Your task to perform on an android device: open chrome and create a bookmark for the current page Image 0: 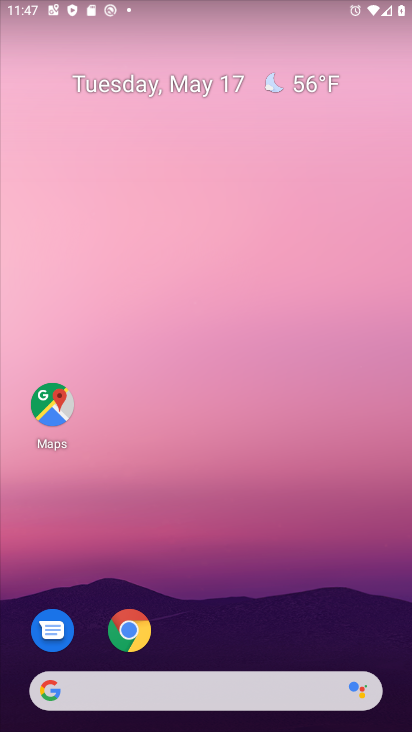
Step 0: drag from (322, 581) to (330, 185)
Your task to perform on an android device: open chrome and create a bookmark for the current page Image 1: 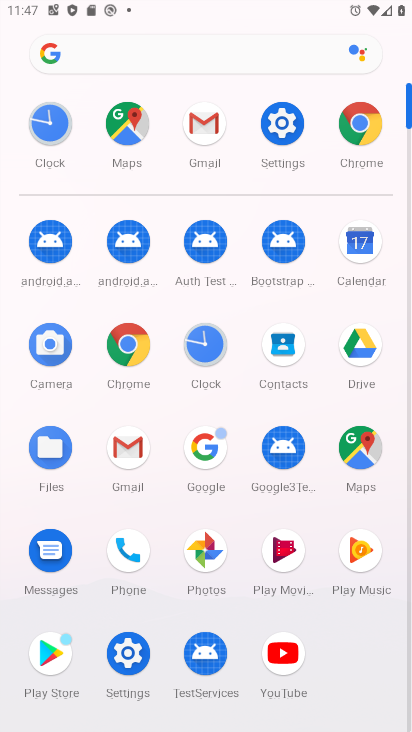
Step 1: click (114, 333)
Your task to perform on an android device: open chrome and create a bookmark for the current page Image 2: 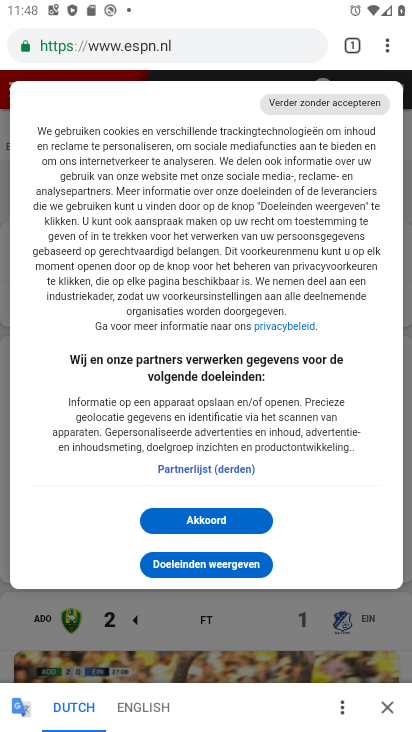
Step 2: task complete